Your task to perform on an android device: Turn off the flashlight Image 0: 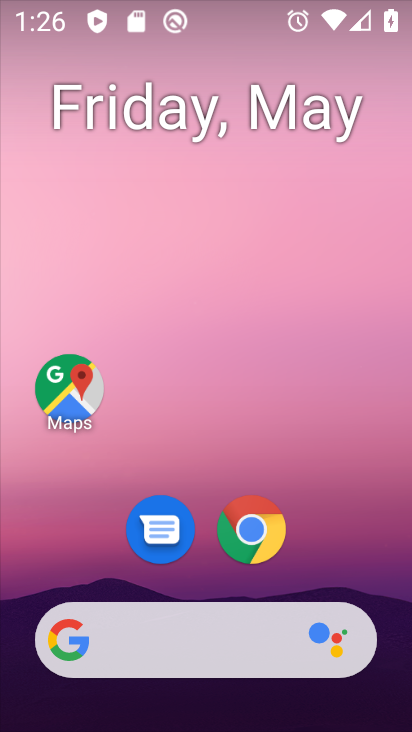
Step 0: drag from (392, 689) to (386, 218)
Your task to perform on an android device: Turn off the flashlight Image 1: 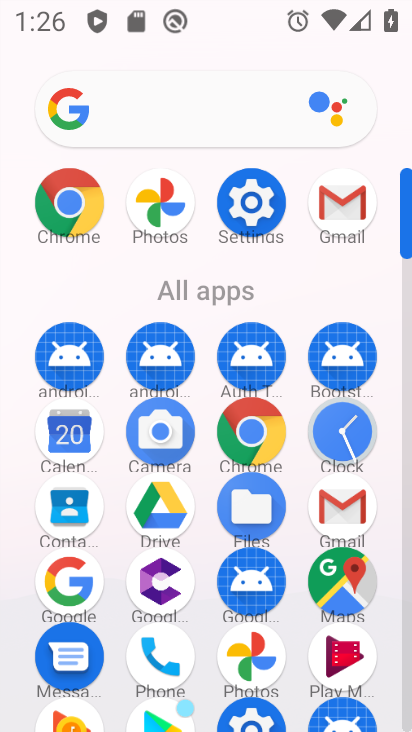
Step 1: click (251, 198)
Your task to perform on an android device: Turn off the flashlight Image 2: 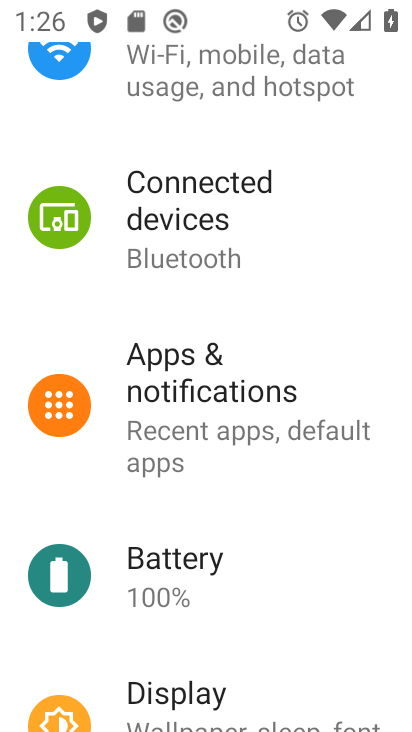
Step 2: click (165, 681)
Your task to perform on an android device: Turn off the flashlight Image 3: 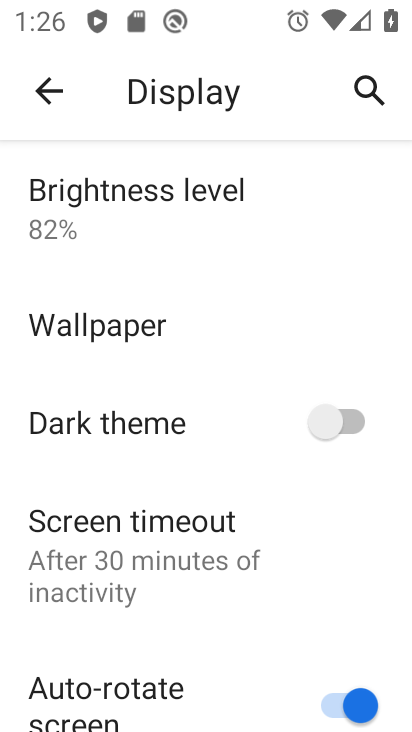
Step 3: task complete